Your task to perform on an android device: open chrome privacy settings Image 0: 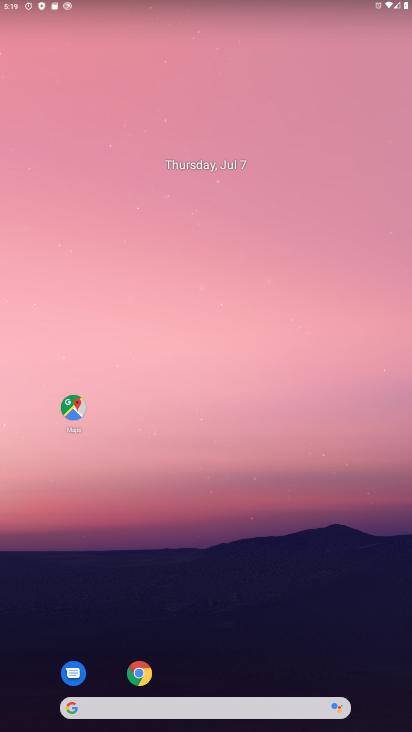
Step 0: drag from (278, 651) to (263, 23)
Your task to perform on an android device: open chrome privacy settings Image 1: 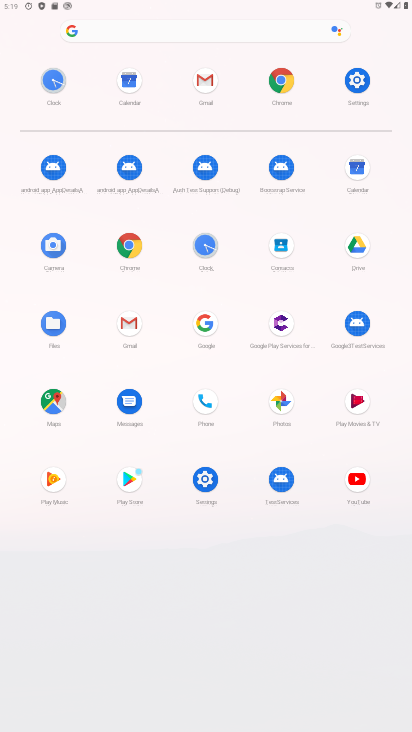
Step 1: click (133, 249)
Your task to perform on an android device: open chrome privacy settings Image 2: 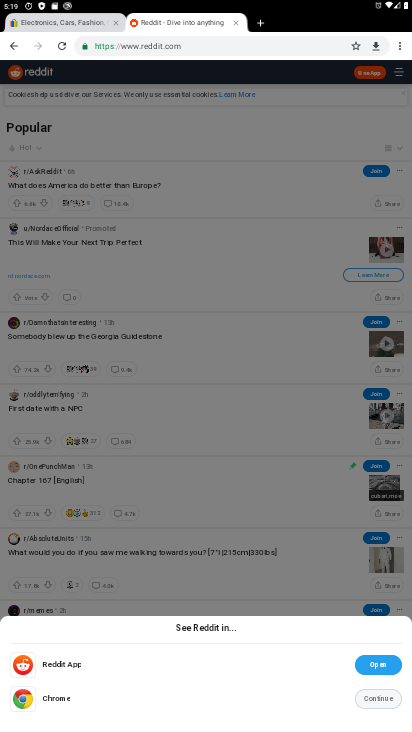
Step 2: drag from (397, 45) to (325, 306)
Your task to perform on an android device: open chrome privacy settings Image 3: 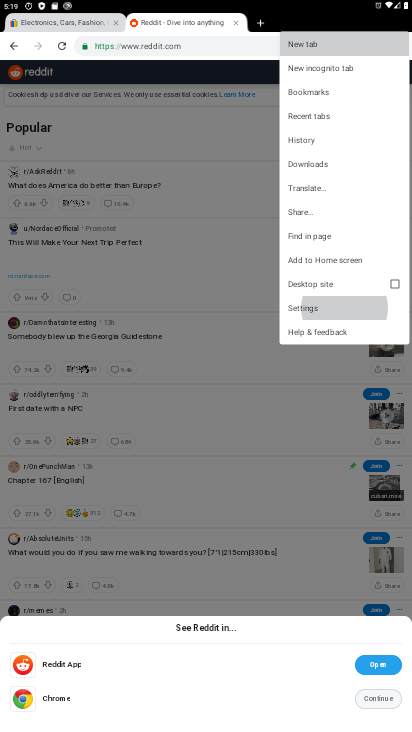
Step 3: click (325, 306)
Your task to perform on an android device: open chrome privacy settings Image 4: 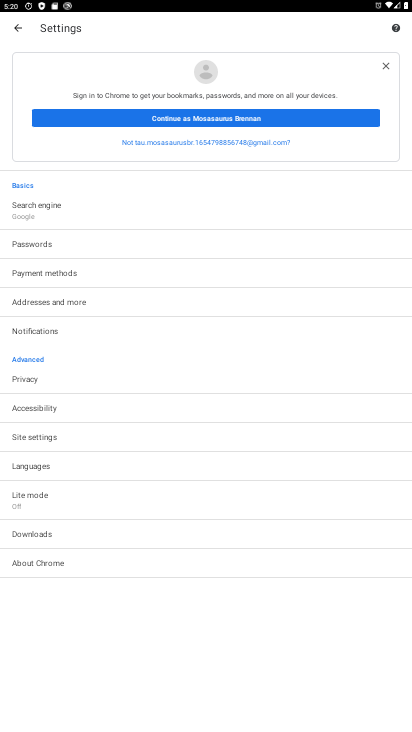
Step 4: click (45, 381)
Your task to perform on an android device: open chrome privacy settings Image 5: 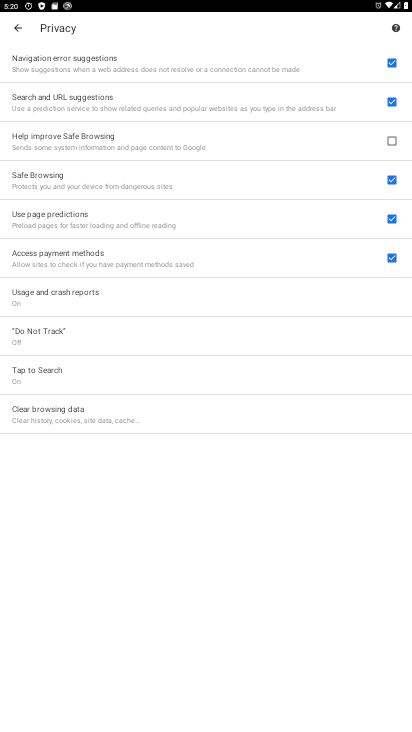
Step 5: task complete